Your task to perform on an android device: check battery use Image 0: 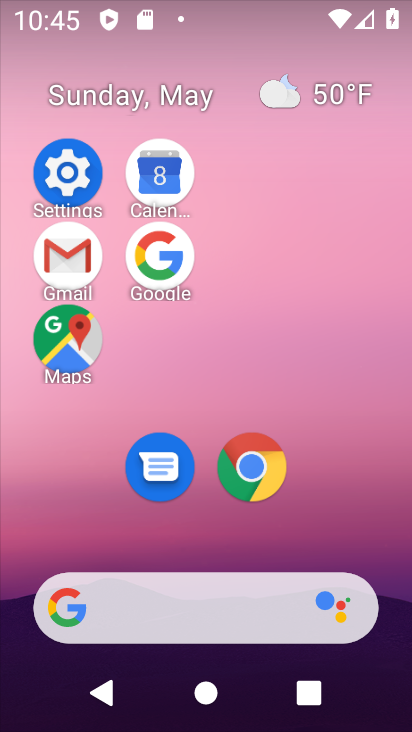
Step 0: click (86, 188)
Your task to perform on an android device: check battery use Image 1: 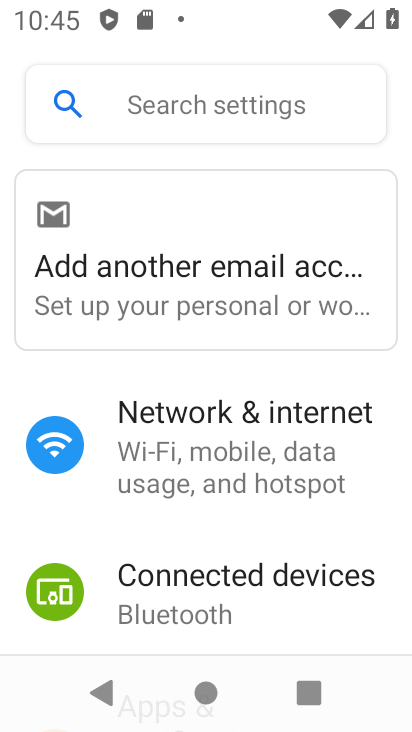
Step 1: drag from (211, 483) to (245, 215)
Your task to perform on an android device: check battery use Image 2: 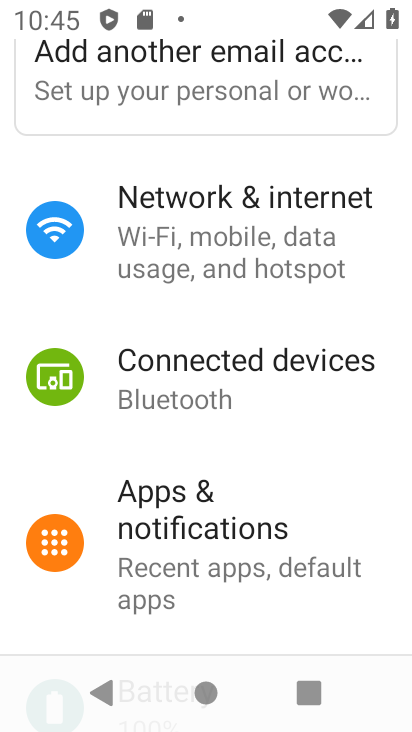
Step 2: drag from (256, 474) to (282, 132)
Your task to perform on an android device: check battery use Image 3: 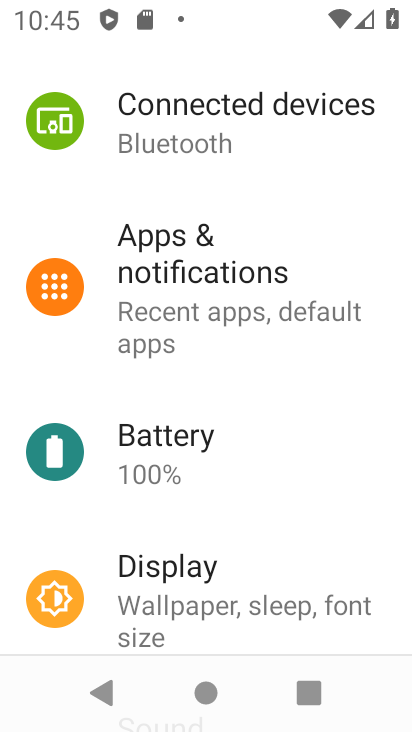
Step 3: click (236, 425)
Your task to perform on an android device: check battery use Image 4: 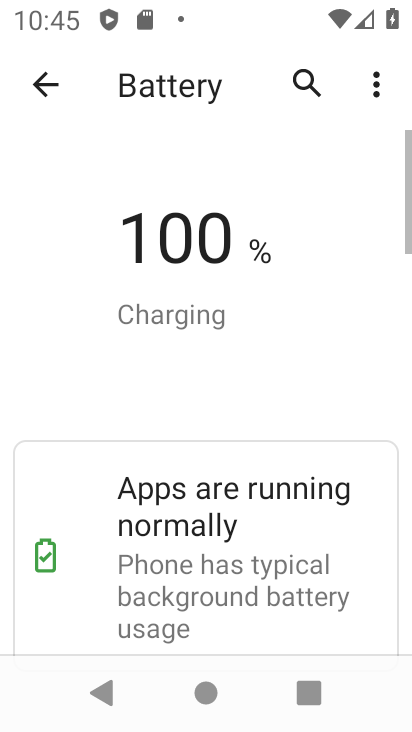
Step 4: click (392, 78)
Your task to perform on an android device: check battery use Image 5: 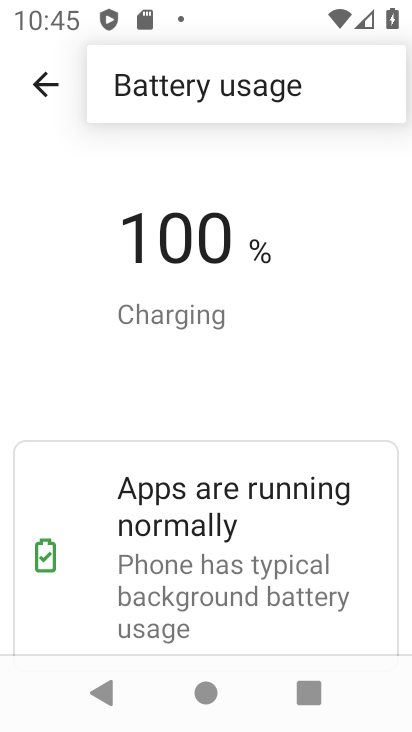
Step 5: click (214, 78)
Your task to perform on an android device: check battery use Image 6: 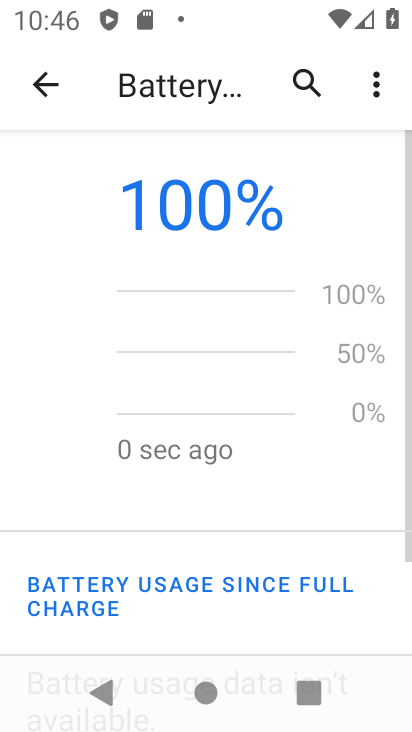
Step 6: task complete